Your task to perform on an android device: toggle priority inbox in the gmail app Image 0: 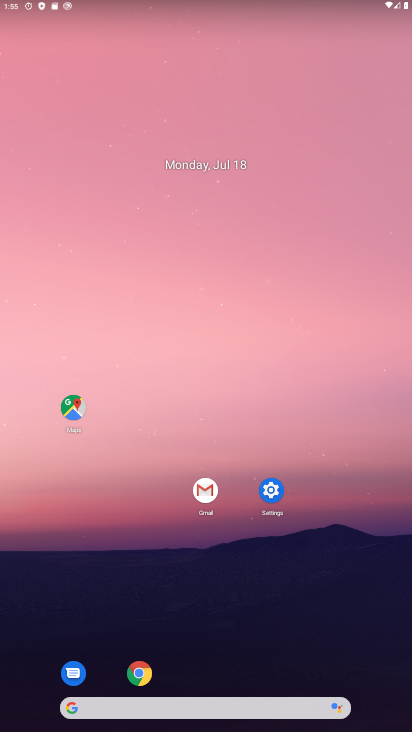
Step 0: click (207, 499)
Your task to perform on an android device: toggle priority inbox in the gmail app Image 1: 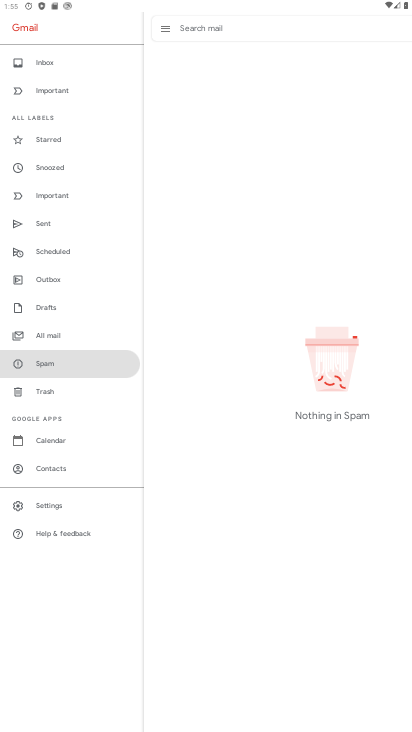
Step 1: click (72, 508)
Your task to perform on an android device: toggle priority inbox in the gmail app Image 2: 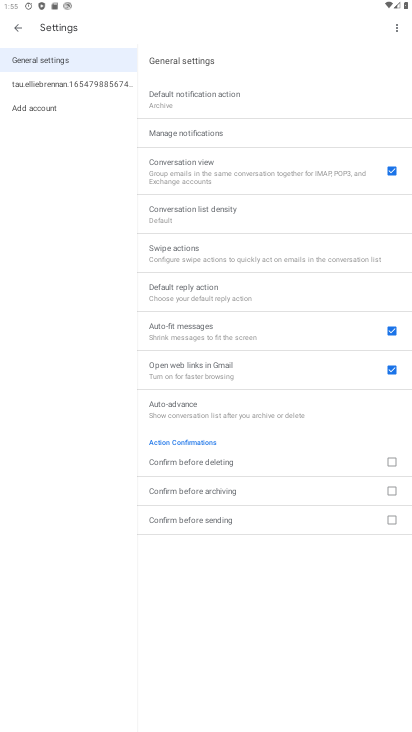
Step 2: drag from (182, 116) to (201, 248)
Your task to perform on an android device: toggle priority inbox in the gmail app Image 3: 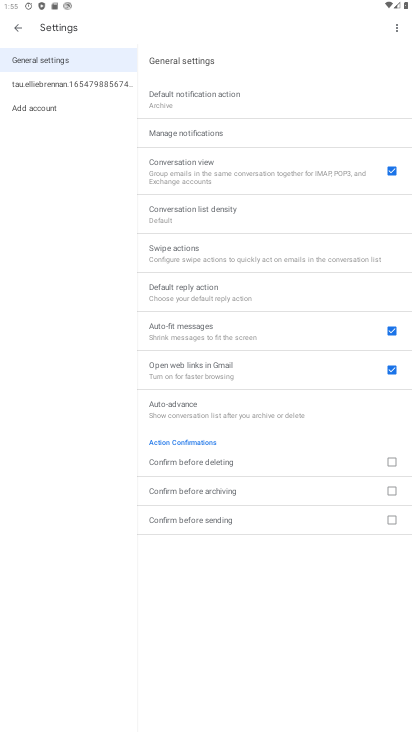
Step 3: drag from (179, 103) to (175, 192)
Your task to perform on an android device: toggle priority inbox in the gmail app Image 4: 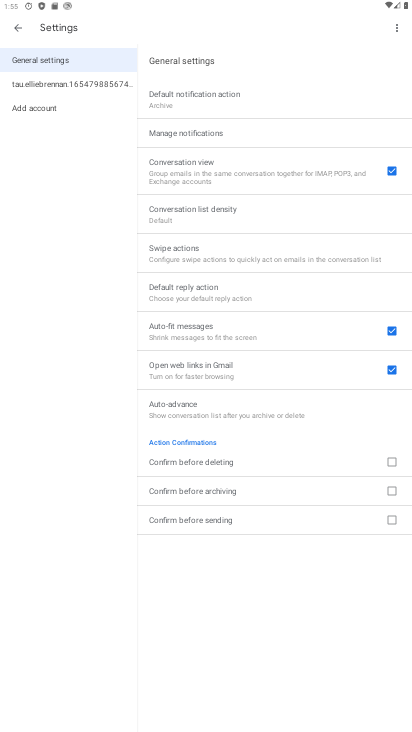
Step 4: click (62, 77)
Your task to perform on an android device: toggle priority inbox in the gmail app Image 5: 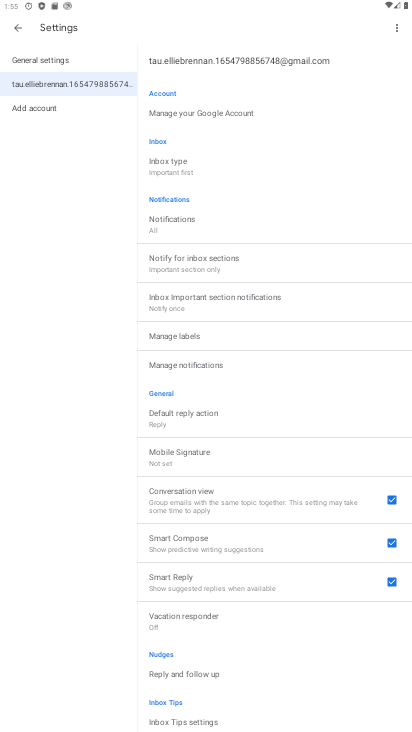
Step 5: click (192, 164)
Your task to perform on an android device: toggle priority inbox in the gmail app Image 6: 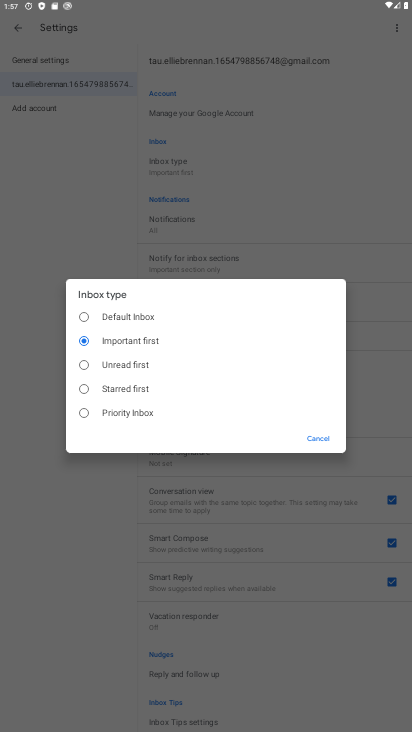
Step 6: task complete